Your task to perform on an android device: change the clock style Image 0: 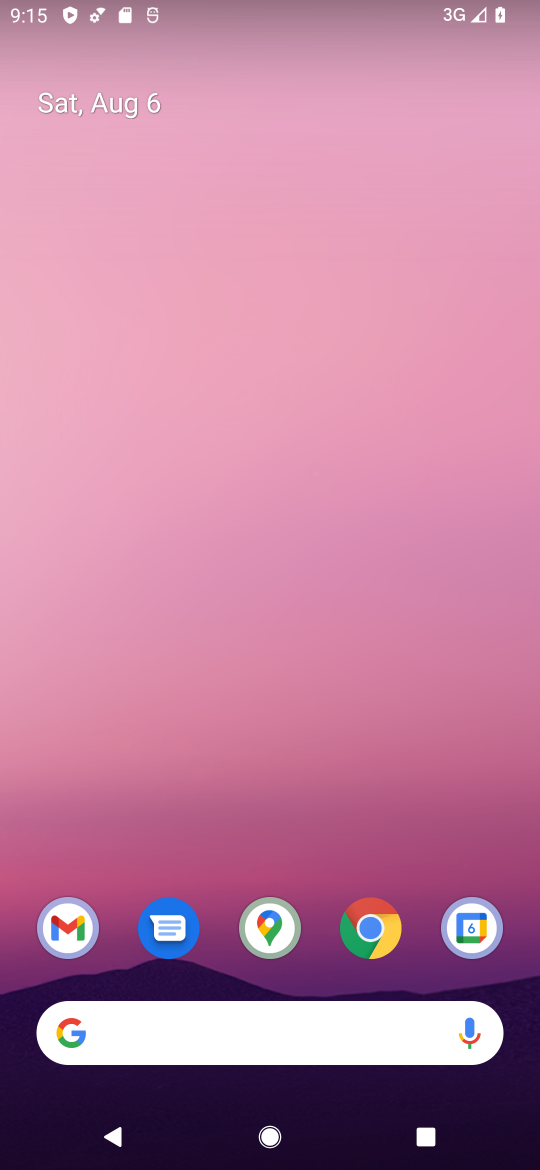
Step 0: drag from (271, 783) to (183, 93)
Your task to perform on an android device: change the clock style Image 1: 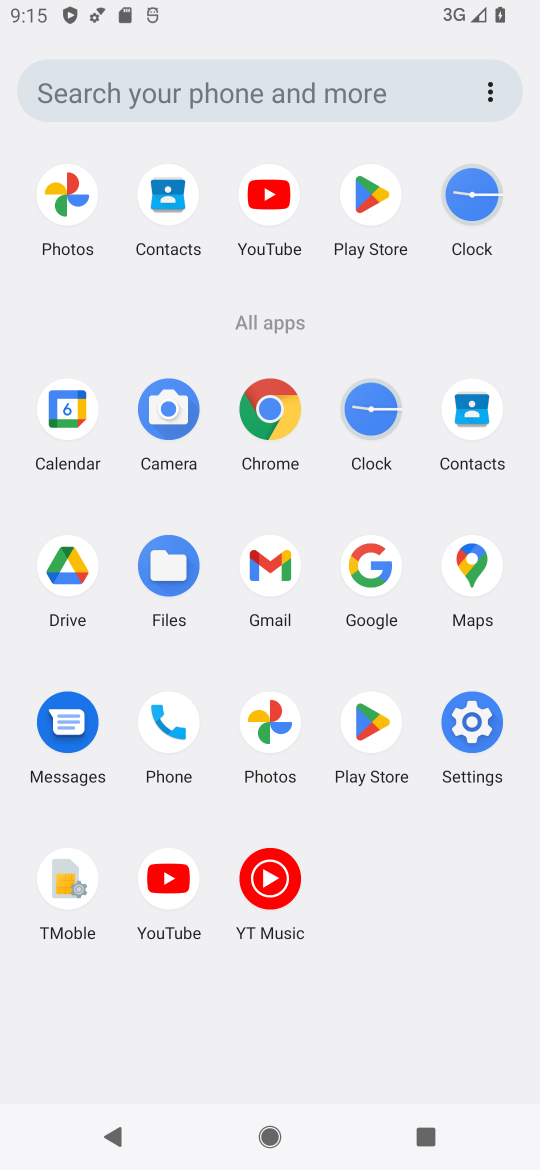
Step 1: click (471, 196)
Your task to perform on an android device: change the clock style Image 2: 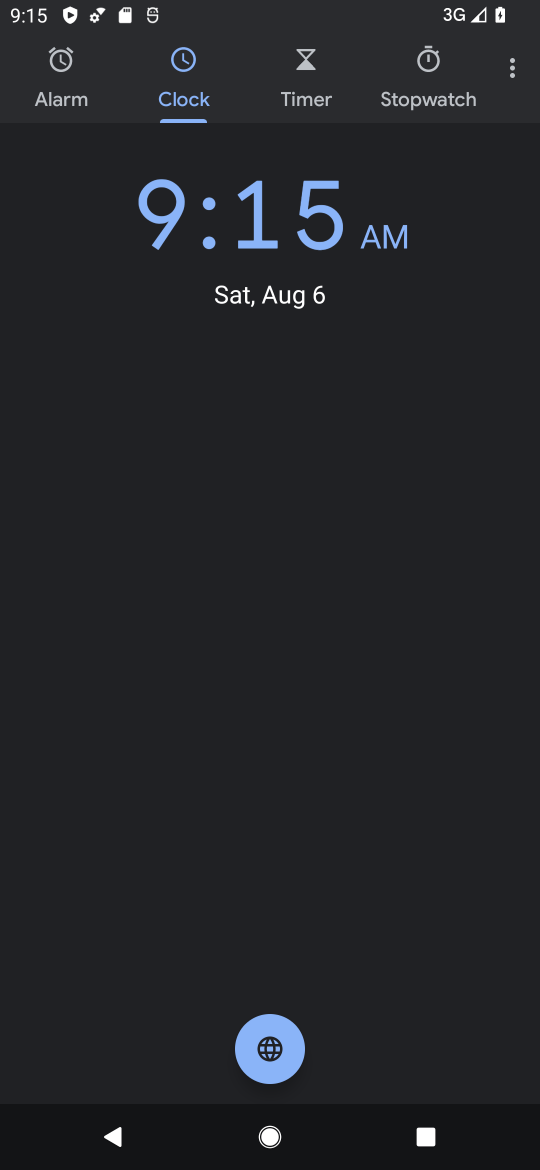
Step 2: click (516, 72)
Your task to perform on an android device: change the clock style Image 3: 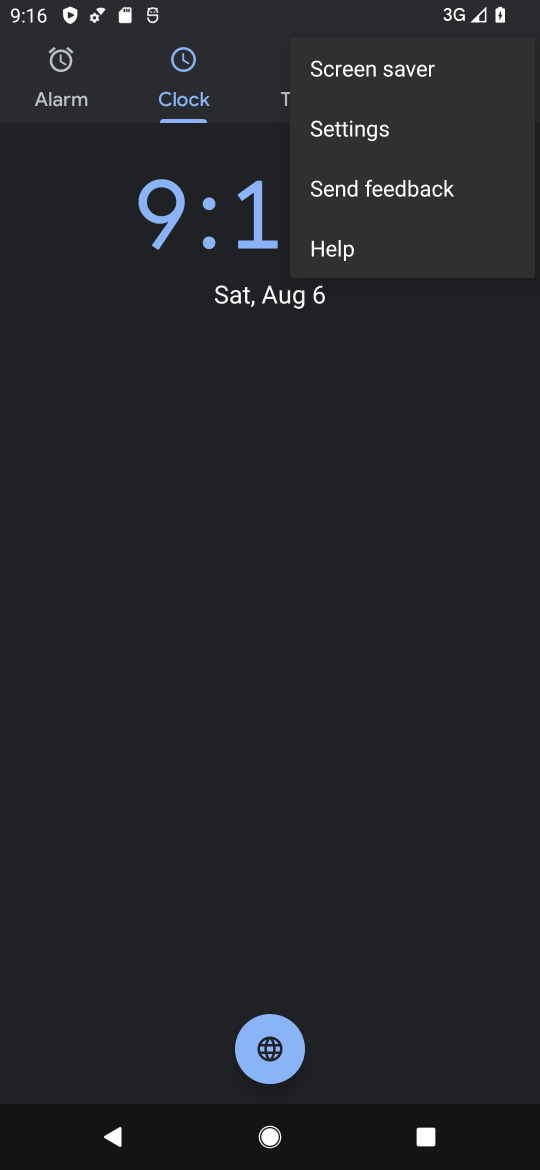
Step 3: click (366, 126)
Your task to perform on an android device: change the clock style Image 4: 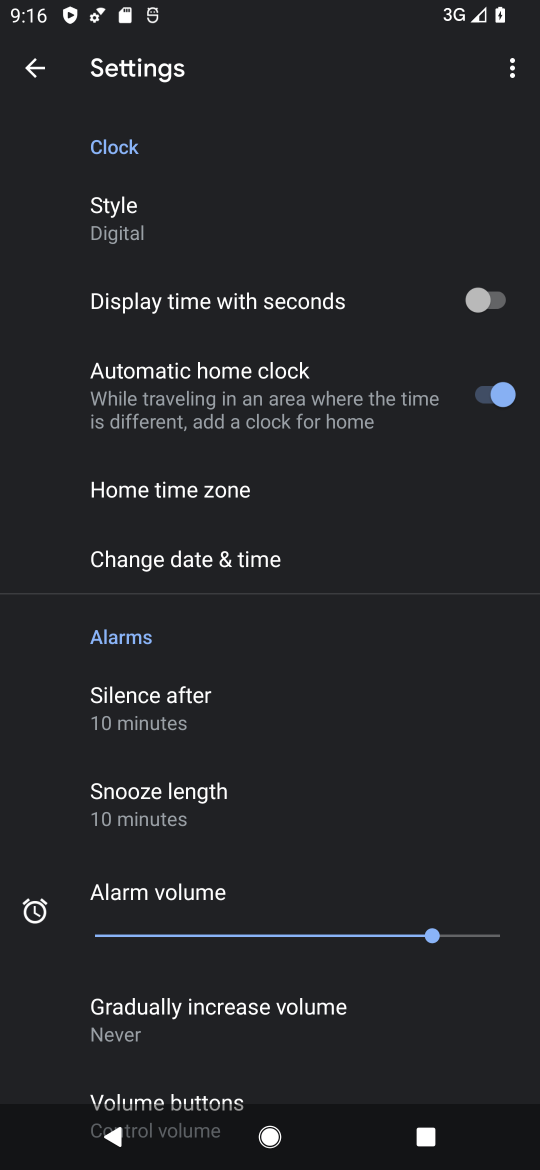
Step 4: click (130, 211)
Your task to perform on an android device: change the clock style Image 5: 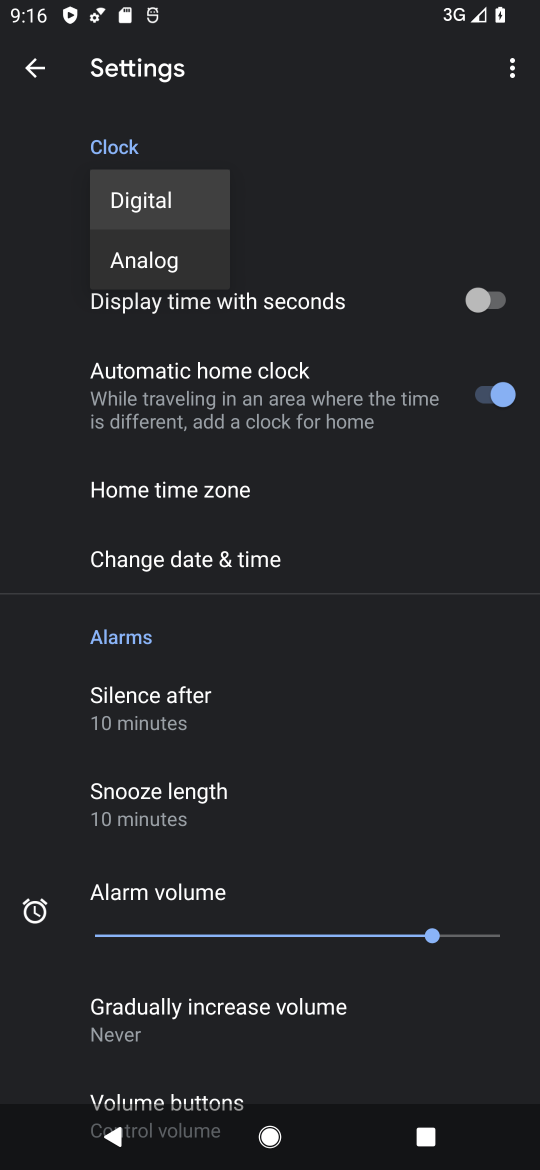
Step 5: click (152, 251)
Your task to perform on an android device: change the clock style Image 6: 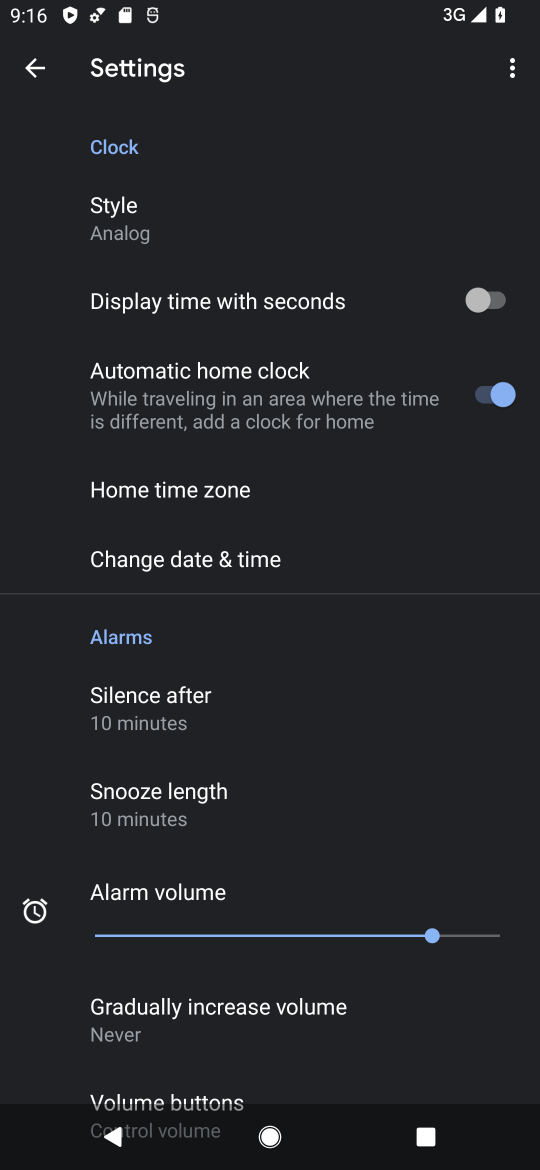
Step 6: task complete